Your task to perform on an android device: toggle notification dots Image 0: 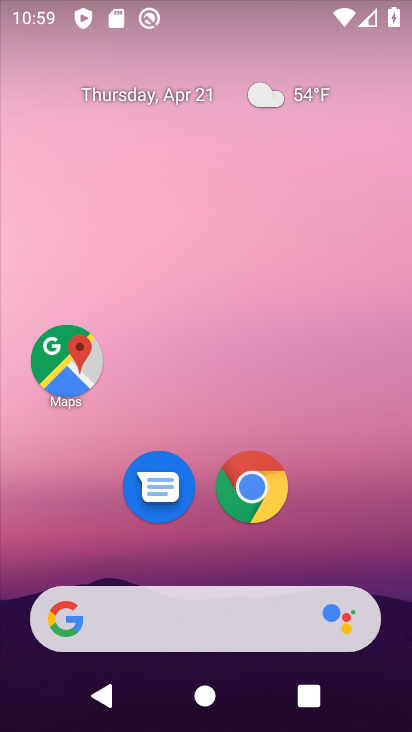
Step 0: drag from (383, 538) to (359, 181)
Your task to perform on an android device: toggle notification dots Image 1: 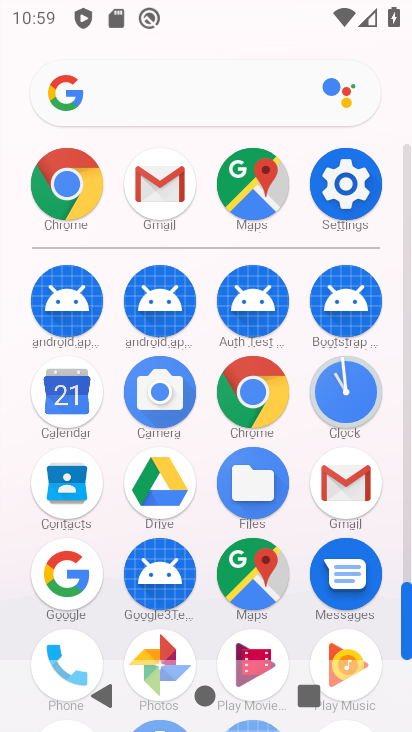
Step 1: drag from (307, 599) to (288, 247)
Your task to perform on an android device: toggle notification dots Image 2: 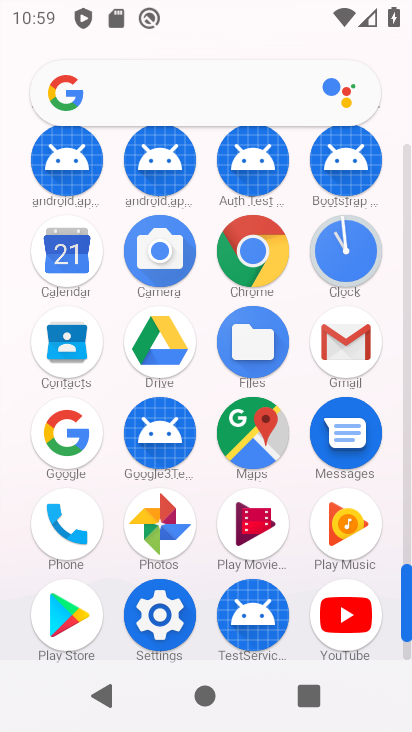
Step 2: click (164, 613)
Your task to perform on an android device: toggle notification dots Image 3: 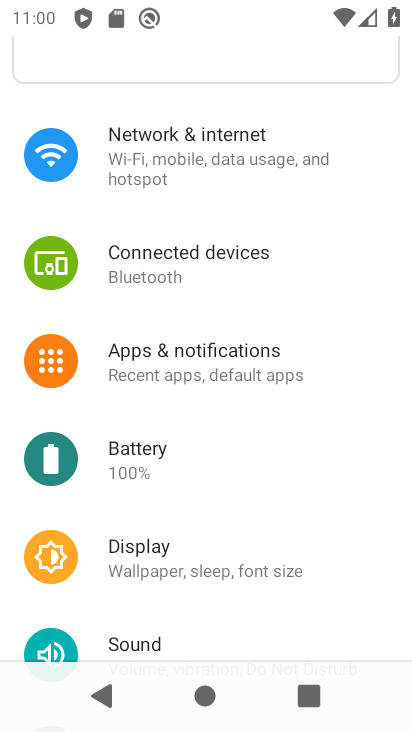
Step 3: click (202, 344)
Your task to perform on an android device: toggle notification dots Image 4: 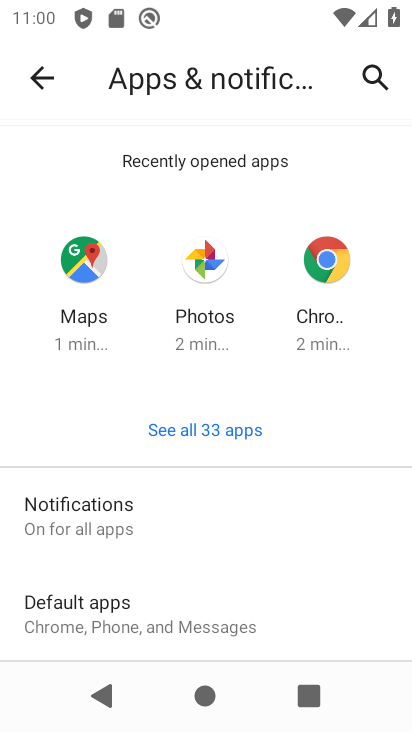
Step 4: click (97, 526)
Your task to perform on an android device: toggle notification dots Image 5: 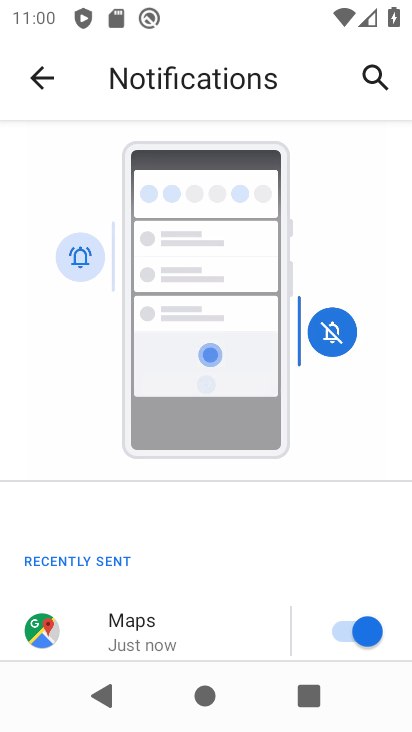
Step 5: drag from (235, 602) to (379, 214)
Your task to perform on an android device: toggle notification dots Image 6: 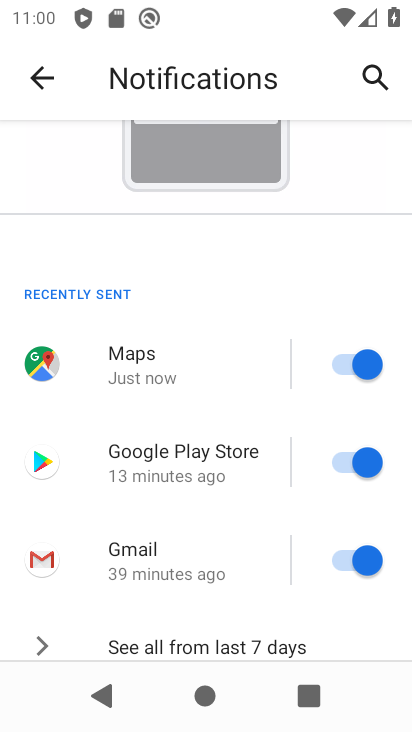
Step 6: drag from (185, 582) to (289, 277)
Your task to perform on an android device: toggle notification dots Image 7: 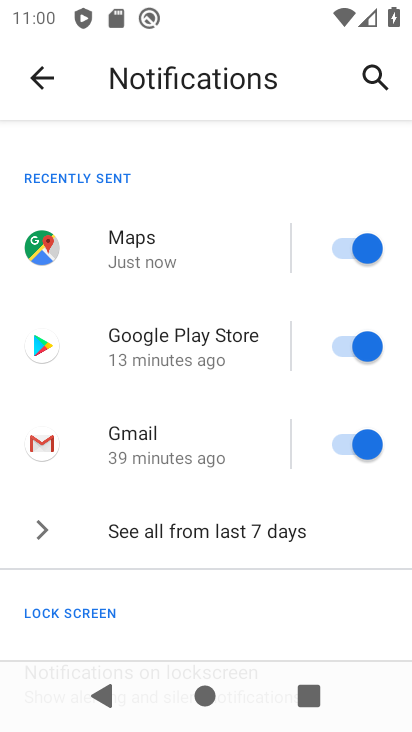
Step 7: drag from (164, 617) to (278, 264)
Your task to perform on an android device: toggle notification dots Image 8: 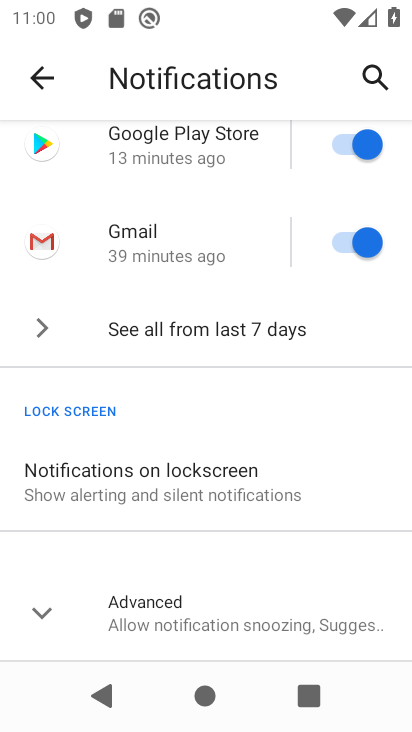
Step 8: click (172, 605)
Your task to perform on an android device: toggle notification dots Image 9: 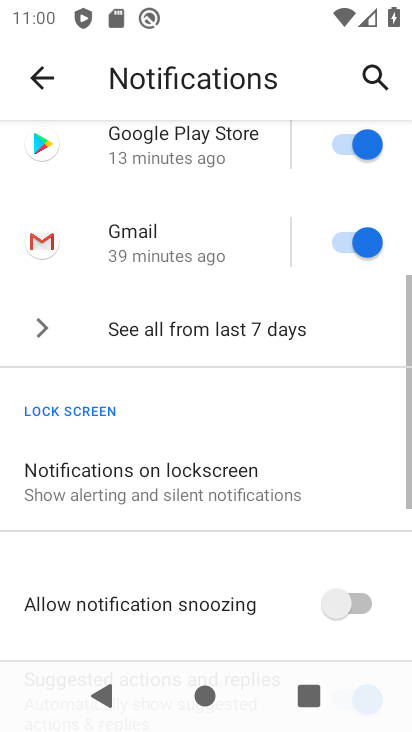
Step 9: drag from (173, 615) to (269, 288)
Your task to perform on an android device: toggle notification dots Image 10: 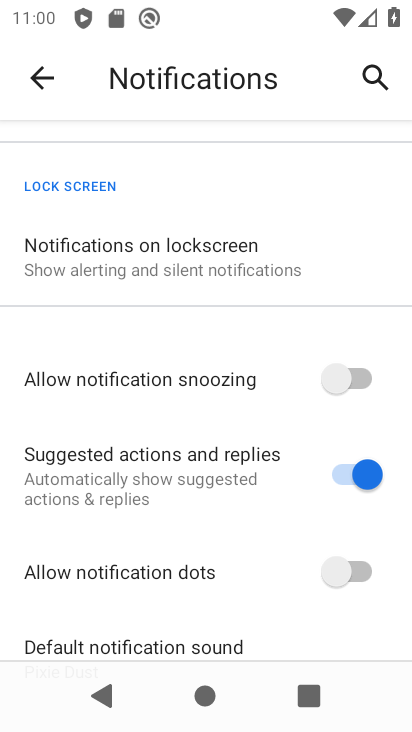
Step 10: drag from (190, 591) to (247, 360)
Your task to perform on an android device: toggle notification dots Image 11: 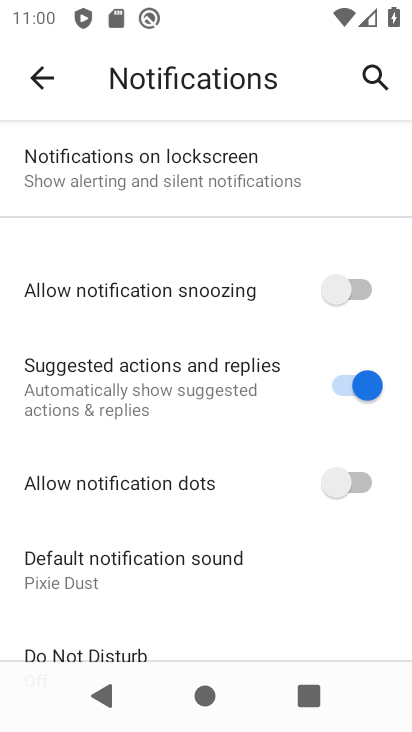
Step 11: click (363, 480)
Your task to perform on an android device: toggle notification dots Image 12: 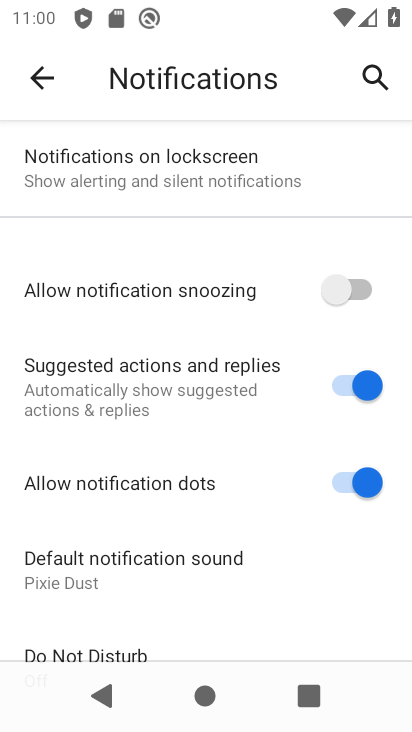
Step 12: task complete